Your task to perform on an android device: turn off sleep mode Image 0: 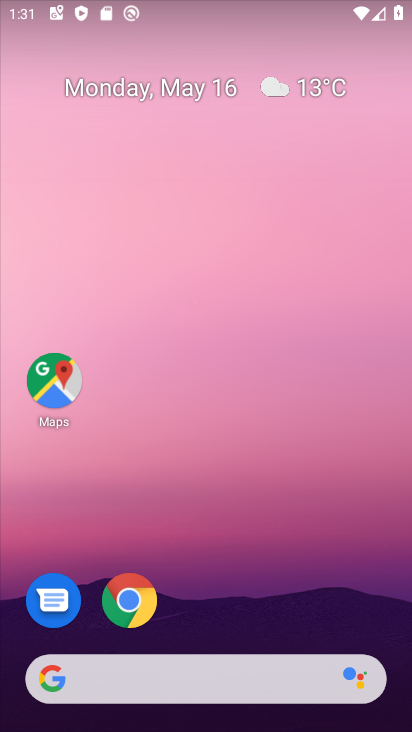
Step 0: drag from (331, 494) to (294, 183)
Your task to perform on an android device: turn off sleep mode Image 1: 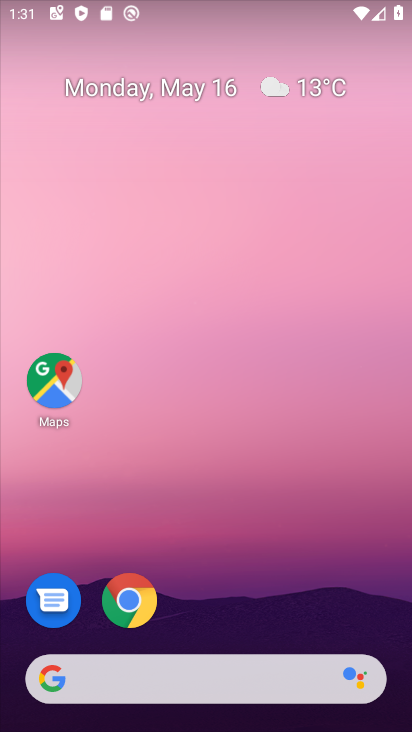
Step 1: drag from (278, 637) to (256, 184)
Your task to perform on an android device: turn off sleep mode Image 2: 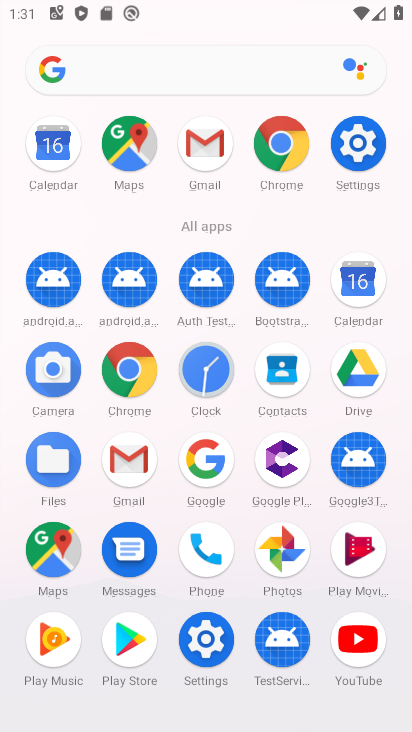
Step 2: click (205, 651)
Your task to perform on an android device: turn off sleep mode Image 3: 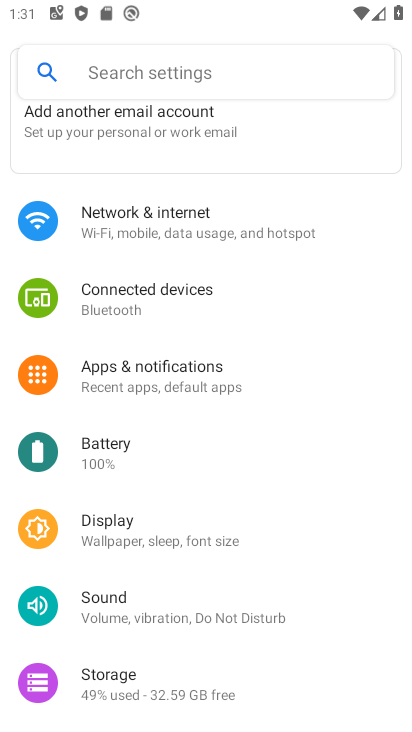
Step 3: click (117, 528)
Your task to perform on an android device: turn off sleep mode Image 4: 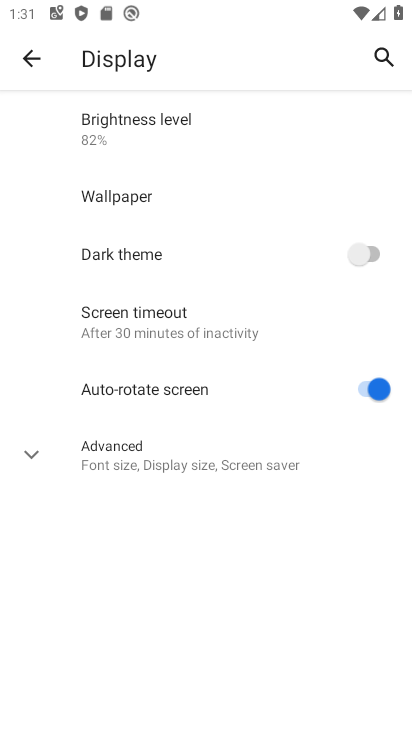
Step 4: task complete